Your task to perform on an android device: Search for macbook pro on ebay, select the first entry, add it to the cart, then select checkout. Image 0: 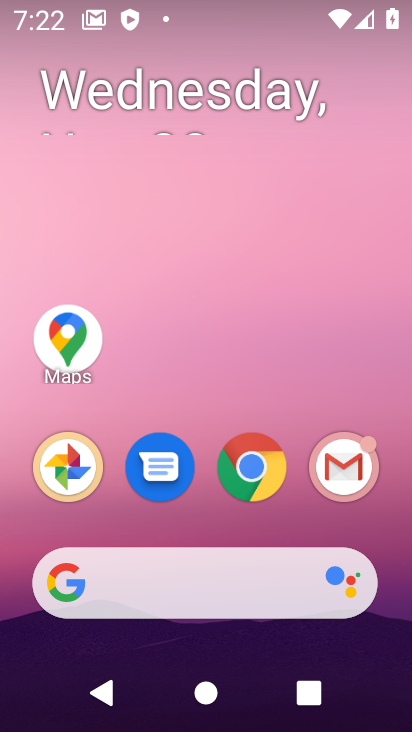
Step 0: click (248, 466)
Your task to perform on an android device: Search for macbook pro on ebay, select the first entry, add it to the cart, then select checkout. Image 1: 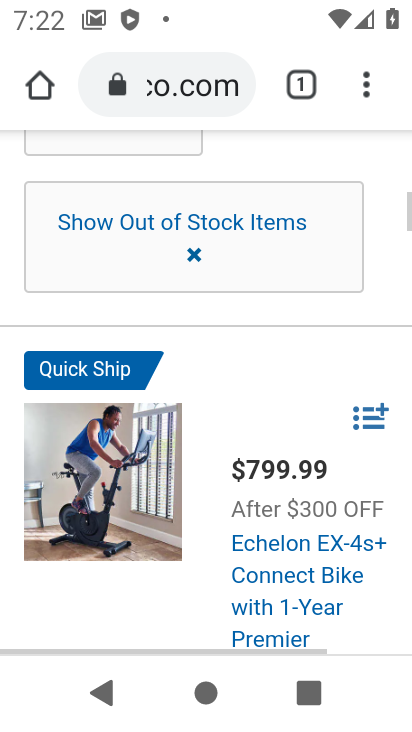
Step 1: click (248, 466)
Your task to perform on an android device: Search for macbook pro on ebay, select the first entry, add it to the cart, then select checkout. Image 2: 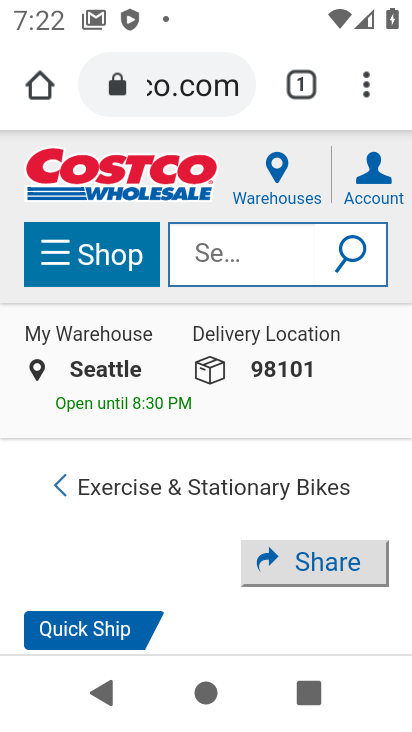
Step 2: click (161, 88)
Your task to perform on an android device: Search for macbook pro on ebay, select the first entry, add it to the cart, then select checkout. Image 3: 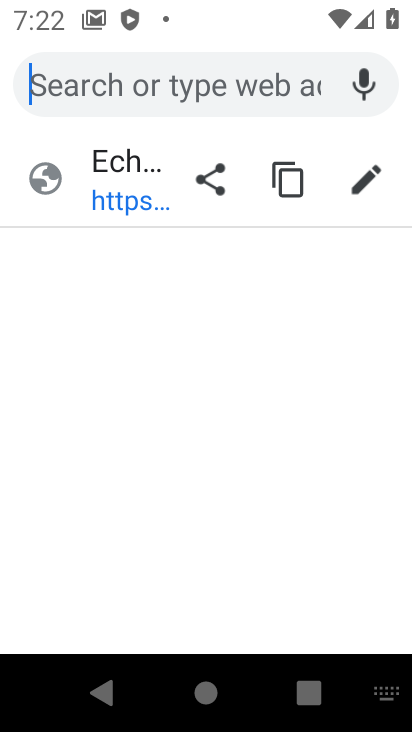
Step 3: type "ebay"
Your task to perform on an android device: Search for macbook pro on ebay, select the first entry, add it to the cart, then select checkout. Image 4: 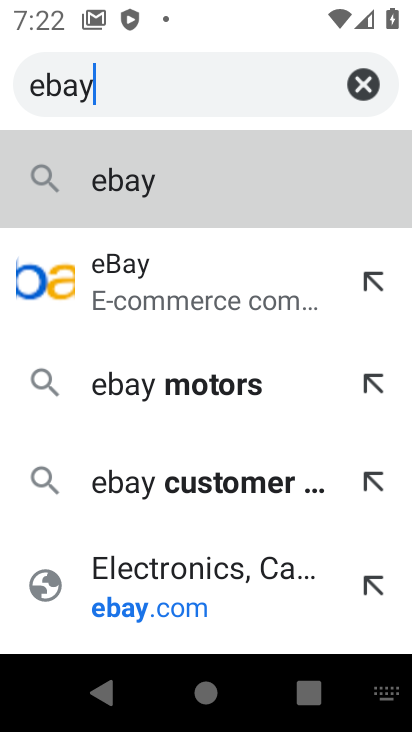
Step 4: click (102, 176)
Your task to perform on an android device: Search for macbook pro on ebay, select the first entry, add it to the cart, then select checkout. Image 5: 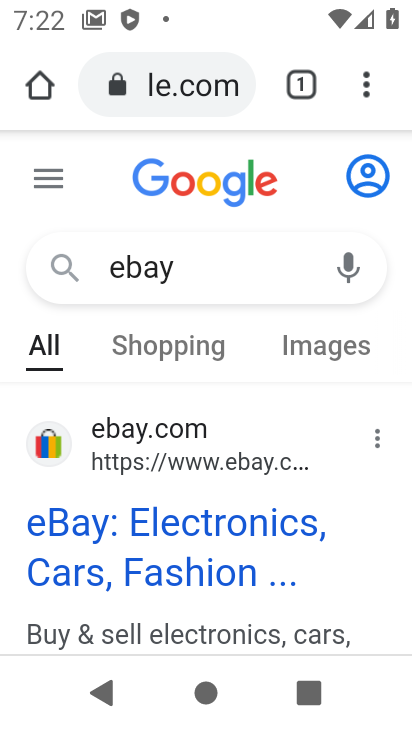
Step 5: click (150, 527)
Your task to perform on an android device: Search for macbook pro on ebay, select the first entry, add it to the cart, then select checkout. Image 6: 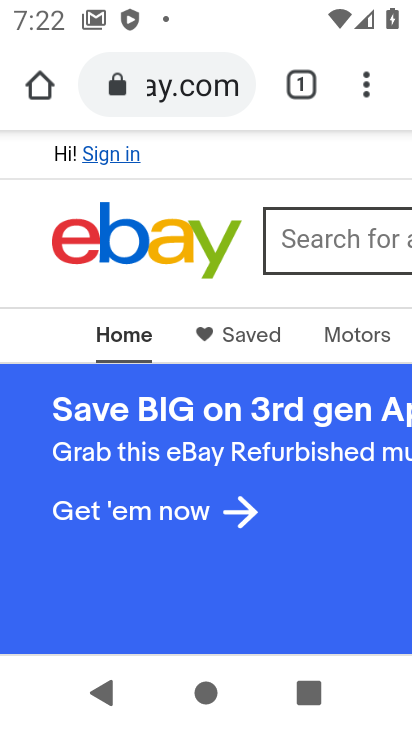
Step 6: click (338, 240)
Your task to perform on an android device: Search for macbook pro on ebay, select the first entry, add it to the cart, then select checkout. Image 7: 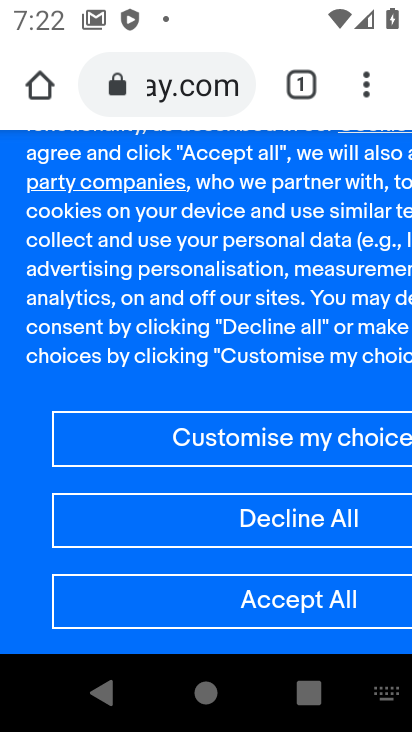
Step 7: type "macbook pro"
Your task to perform on an android device: Search for macbook pro on ebay, select the first entry, add it to the cart, then select checkout. Image 8: 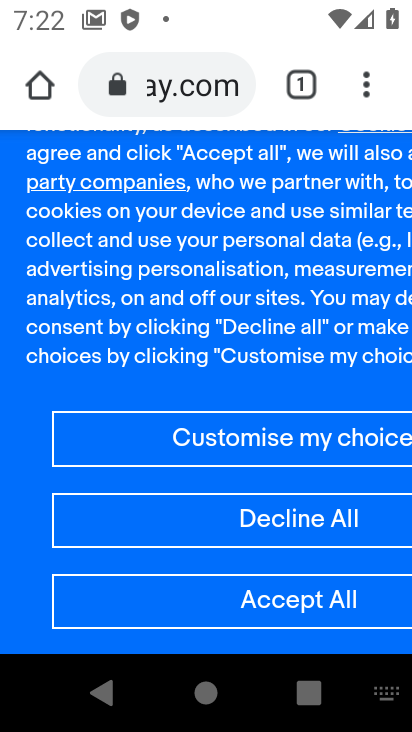
Step 8: click (220, 602)
Your task to perform on an android device: Search for macbook pro on ebay, select the first entry, add it to the cart, then select checkout. Image 9: 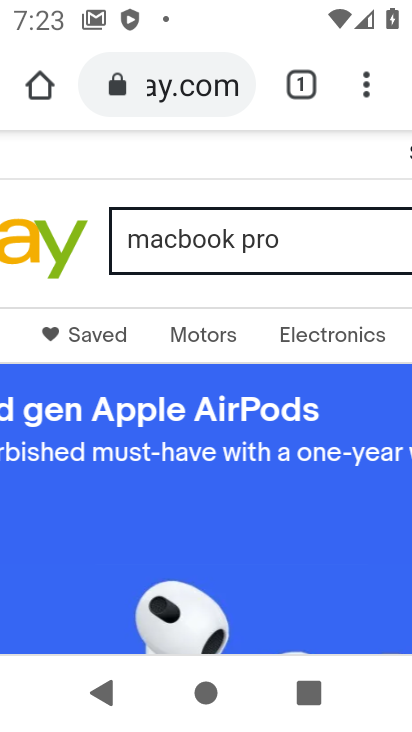
Step 9: drag from (318, 248) to (60, 261)
Your task to perform on an android device: Search for macbook pro on ebay, select the first entry, add it to the cart, then select checkout. Image 10: 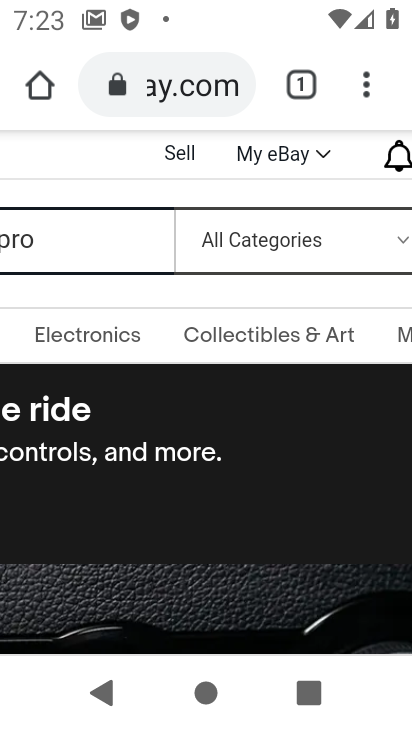
Step 10: drag from (327, 235) to (181, 262)
Your task to perform on an android device: Search for macbook pro on ebay, select the first entry, add it to the cart, then select checkout. Image 11: 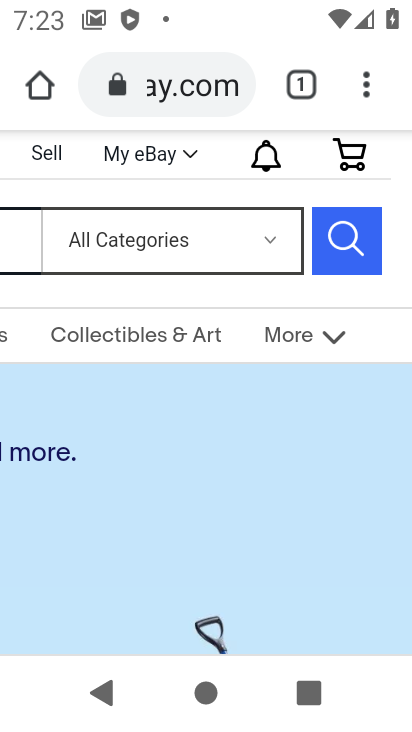
Step 11: click (351, 234)
Your task to perform on an android device: Search for macbook pro on ebay, select the first entry, add it to the cart, then select checkout. Image 12: 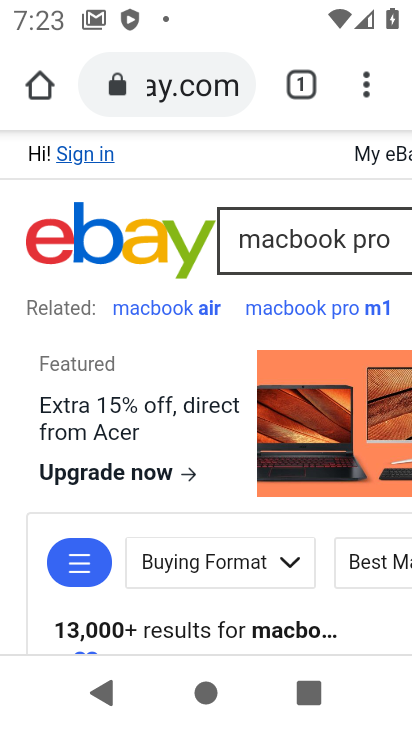
Step 12: drag from (203, 561) to (196, 325)
Your task to perform on an android device: Search for macbook pro on ebay, select the first entry, add it to the cart, then select checkout. Image 13: 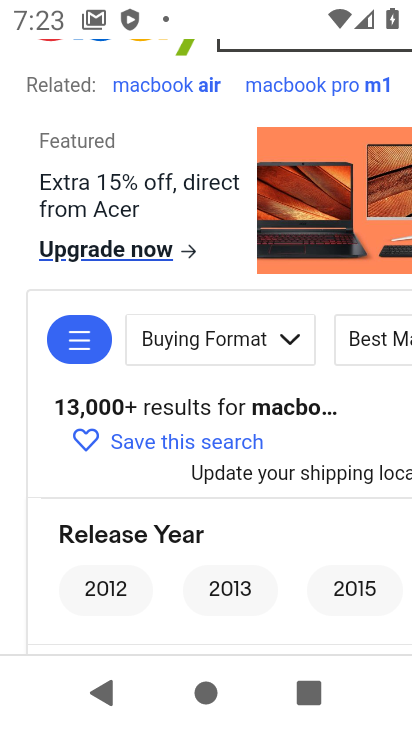
Step 13: drag from (243, 558) to (243, 282)
Your task to perform on an android device: Search for macbook pro on ebay, select the first entry, add it to the cart, then select checkout. Image 14: 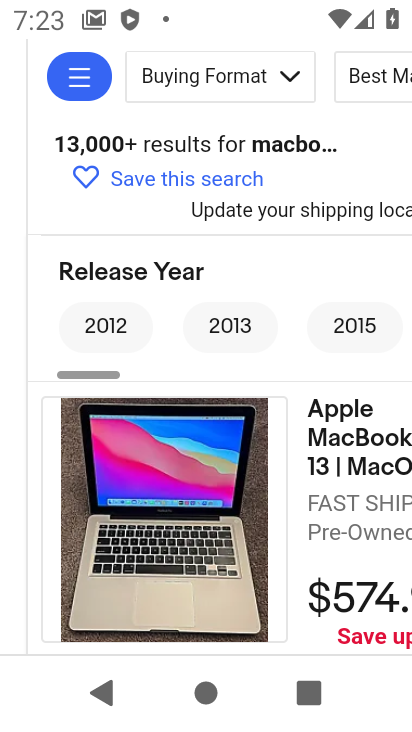
Step 14: click (330, 465)
Your task to perform on an android device: Search for macbook pro on ebay, select the first entry, add it to the cart, then select checkout. Image 15: 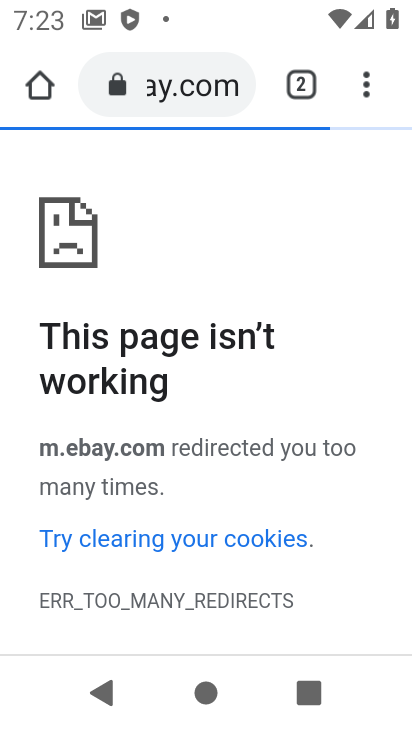
Step 15: task complete